Your task to perform on an android device: find which apps use the phone's location Image 0: 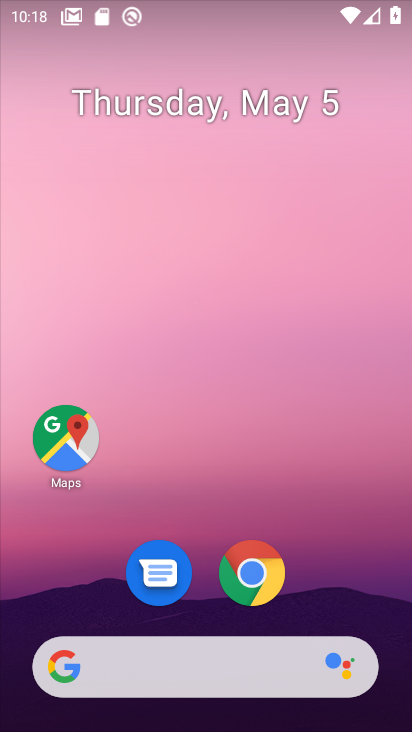
Step 0: drag from (26, 685) to (215, 194)
Your task to perform on an android device: find which apps use the phone's location Image 1: 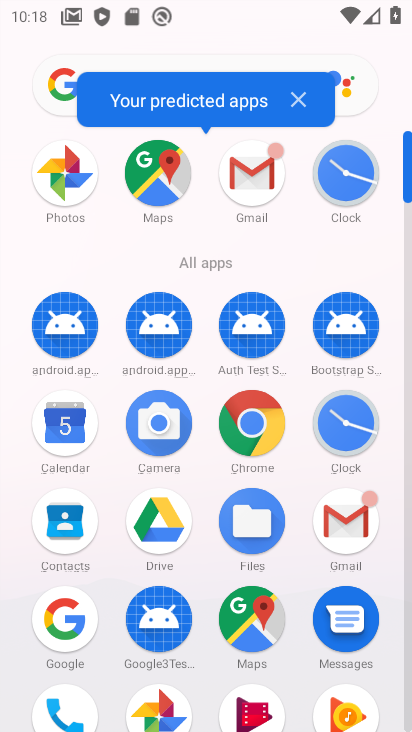
Step 1: drag from (95, 619) to (231, 188)
Your task to perform on an android device: find which apps use the phone's location Image 2: 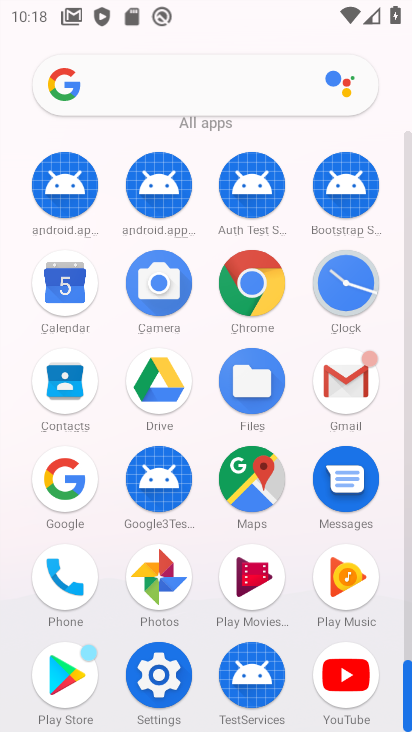
Step 2: click (164, 661)
Your task to perform on an android device: find which apps use the phone's location Image 3: 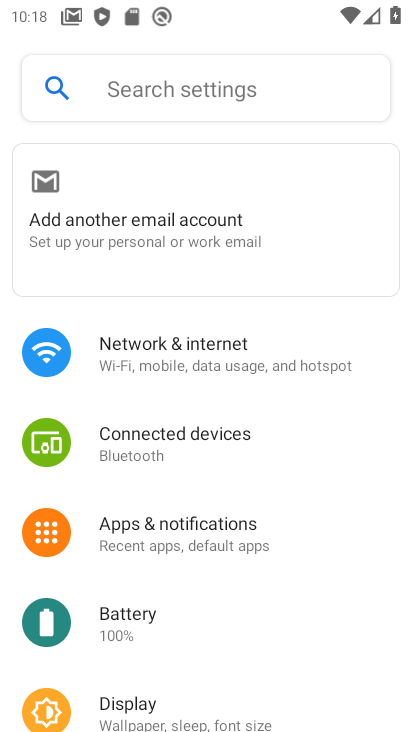
Step 3: drag from (167, 656) to (232, 241)
Your task to perform on an android device: find which apps use the phone's location Image 4: 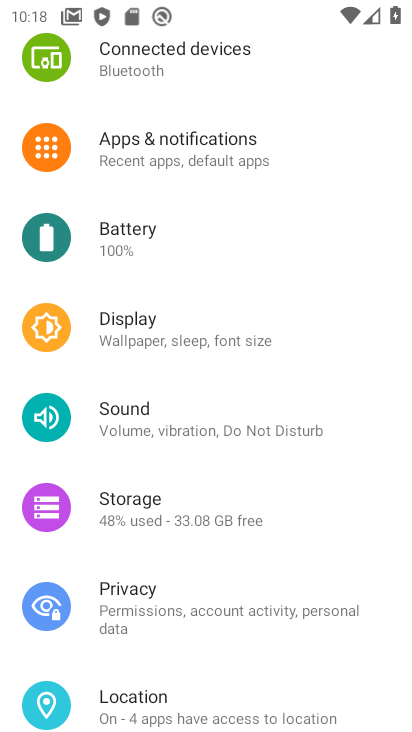
Step 4: click (177, 705)
Your task to perform on an android device: find which apps use the phone's location Image 5: 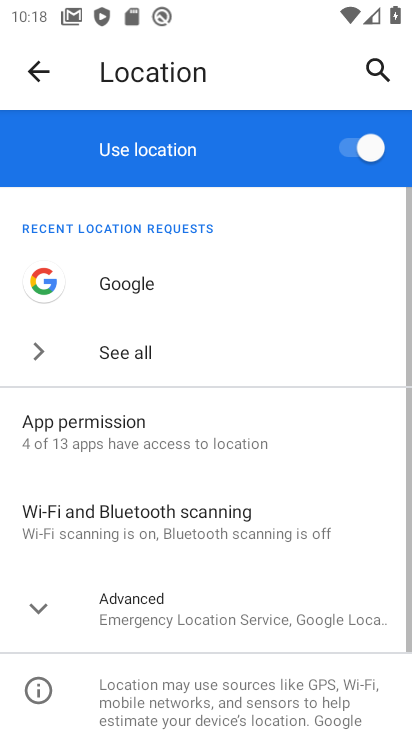
Step 5: click (86, 430)
Your task to perform on an android device: find which apps use the phone's location Image 6: 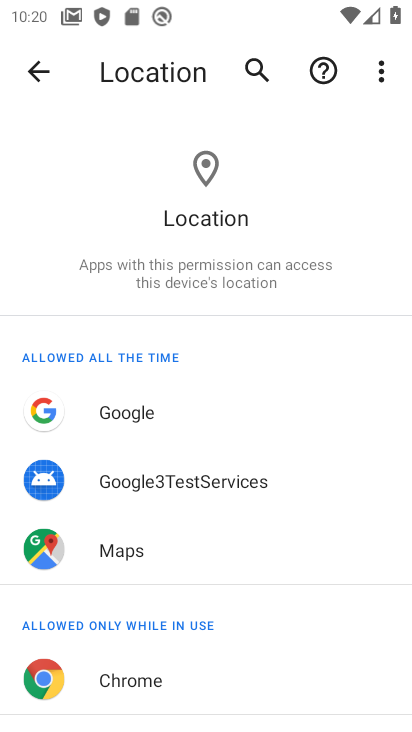
Step 6: task complete